Your task to perform on an android device: turn vacation reply on in the gmail app Image 0: 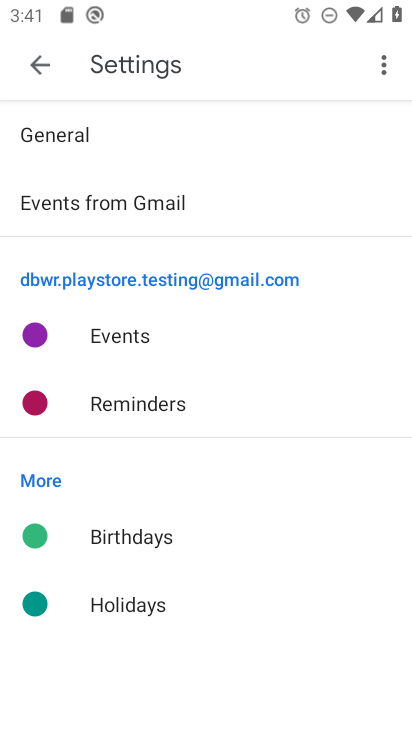
Step 0: press back button
Your task to perform on an android device: turn vacation reply on in the gmail app Image 1: 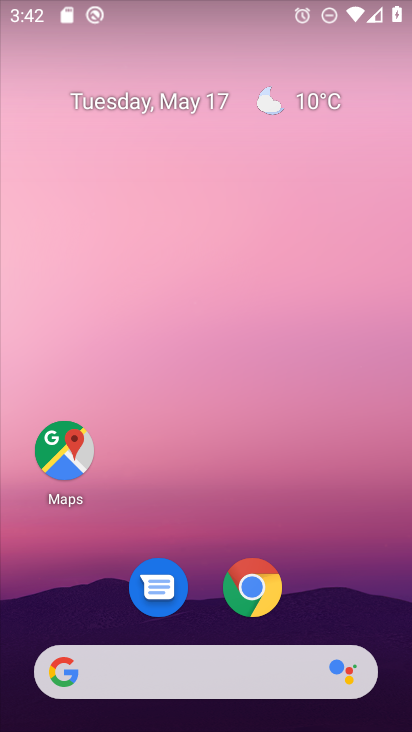
Step 1: drag from (312, 580) to (259, 16)
Your task to perform on an android device: turn vacation reply on in the gmail app Image 2: 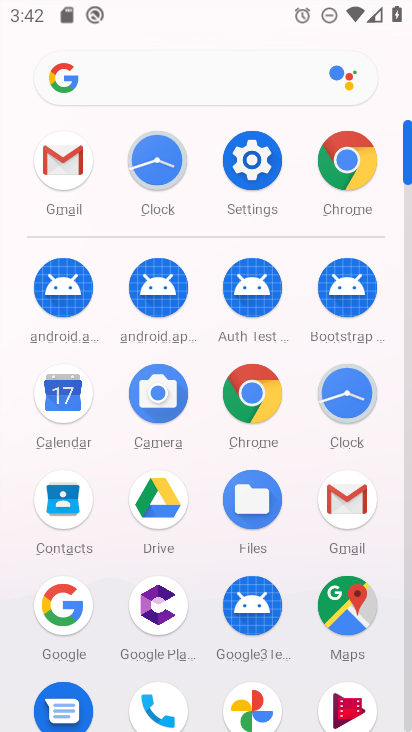
Step 2: drag from (13, 544) to (27, 223)
Your task to perform on an android device: turn vacation reply on in the gmail app Image 3: 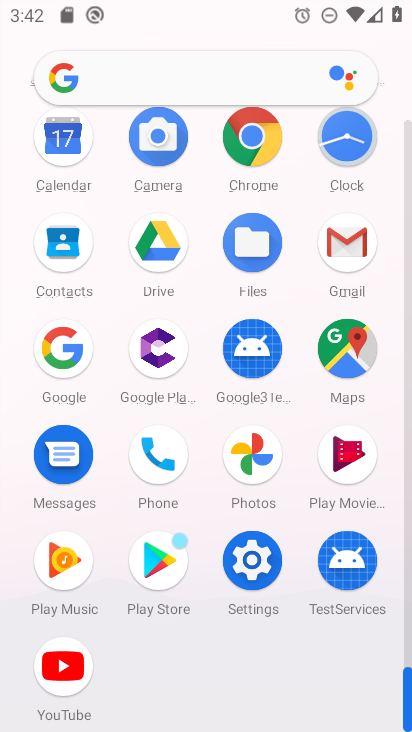
Step 3: drag from (28, 515) to (20, 287)
Your task to perform on an android device: turn vacation reply on in the gmail app Image 4: 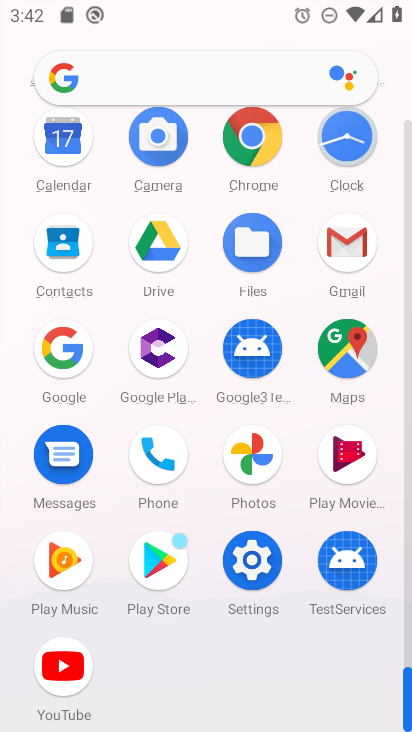
Step 4: click (347, 238)
Your task to perform on an android device: turn vacation reply on in the gmail app Image 5: 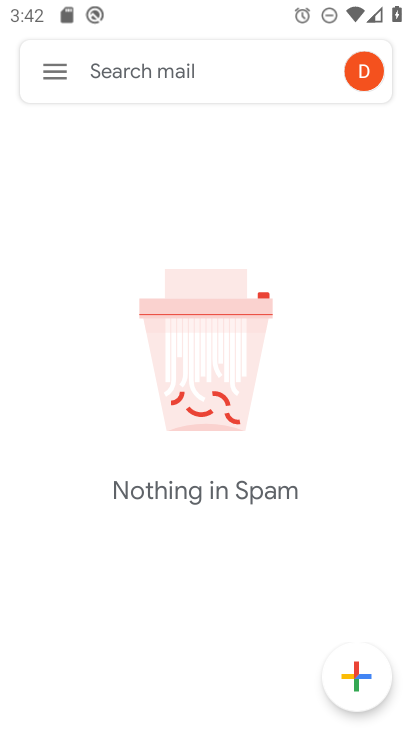
Step 5: click (38, 79)
Your task to perform on an android device: turn vacation reply on in the gmail app Image 6: 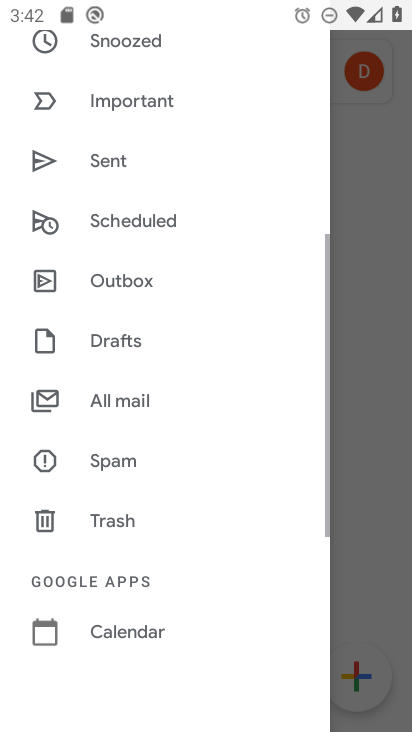
Step 6: drag from (173, 589) to (187, 276)
Your task to perform on an android device: turn vacation reply on in the gmail app Image 7: 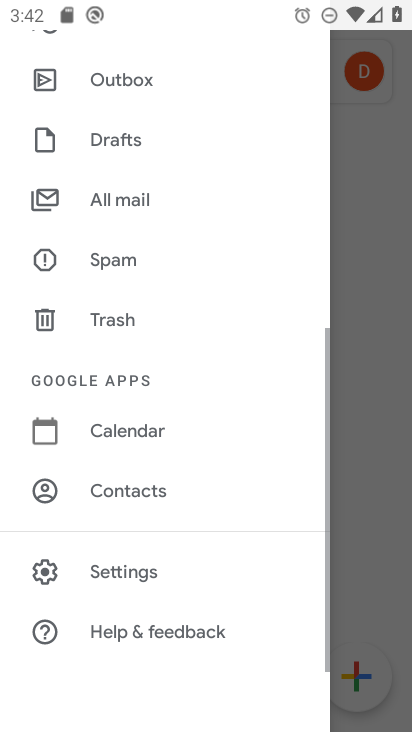
Step 7: click (129, 564)
Your task to perform on an android device: turn vacation reply on in the gmail app Image 8: 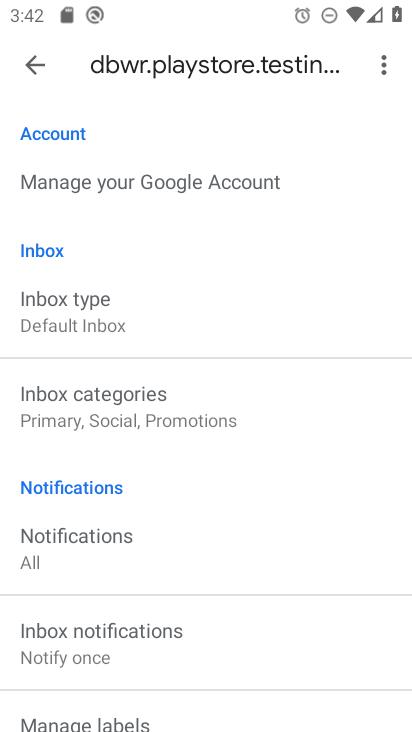
Step 8: drag from (242, 542) to (267, 206)
Your task to perform on an android device: turn vacation reply on in the gmail app Image 9: 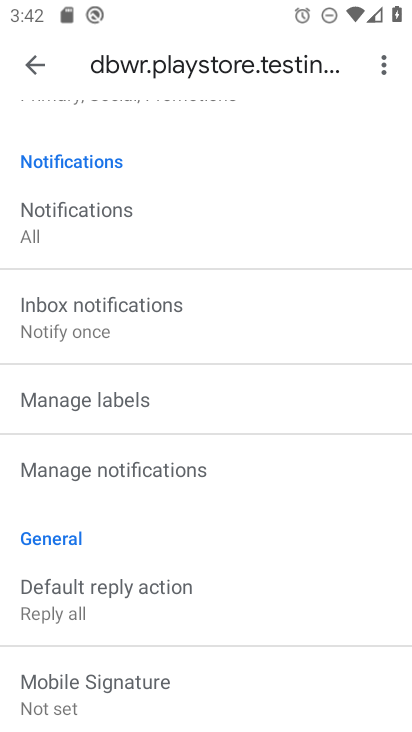
Step 9: drag from (247, 570) to (259, 245)
Your task to perform on an android device: turn vacation reply on in the gmail app Image 10: 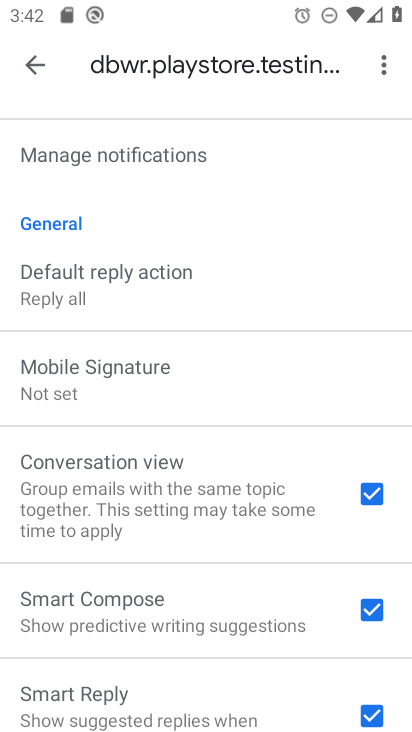
Step 10: drag from (243, 566) to (279, 323)
Your task to perform on an android device: turn vacation reply on in the gmail app Image 11: 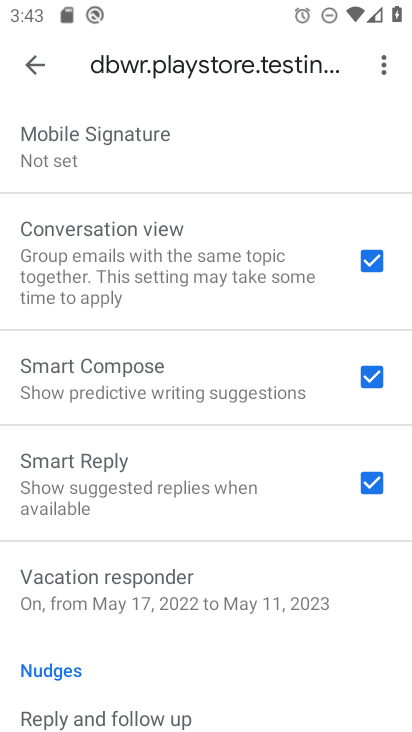
Step 11: click (157, 608)
Your task to perform on an android device: turn vacation reply on in the gmail app Image 12: 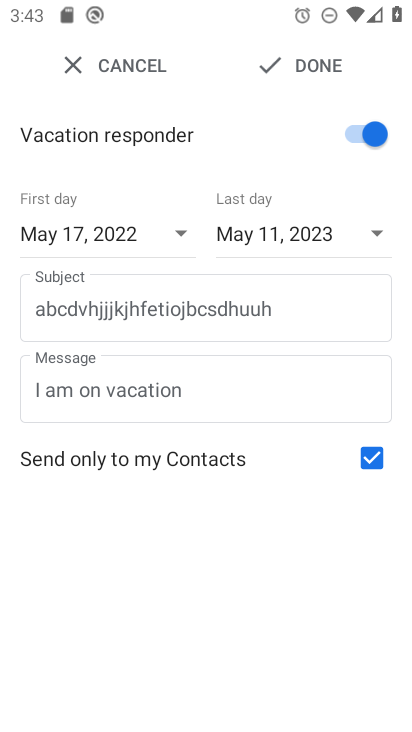
Step 12: click (285, 64)
Your task to perform on an android device: turn vacation reply on in the gmail app Image 13: 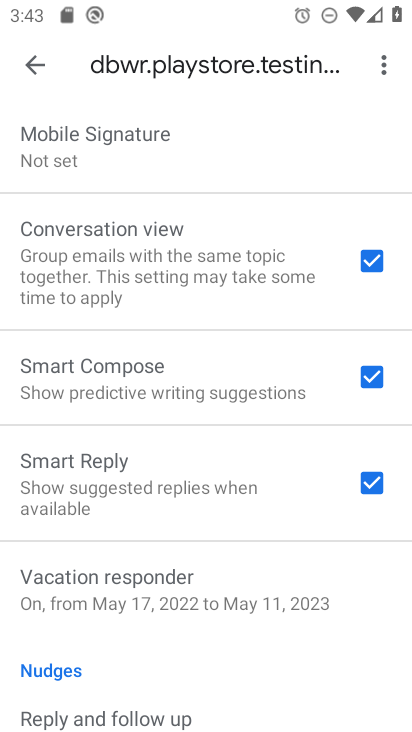
Step 13: task complete